Your task to perform on an android device: Open sound settings Image 0: 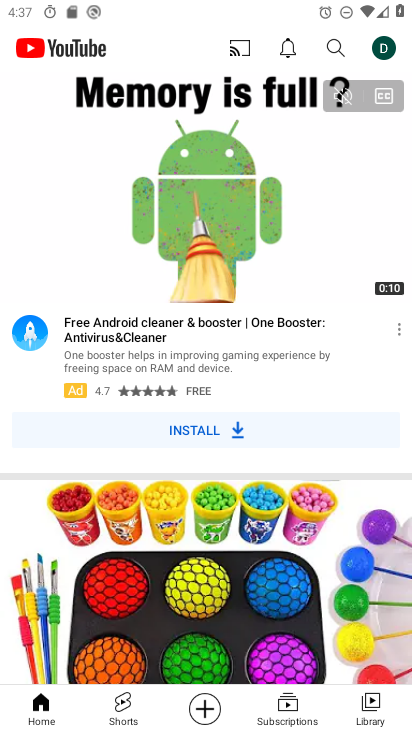
Step 0: press back button
Your task to perform on an android device: Open sound settings Image 1: 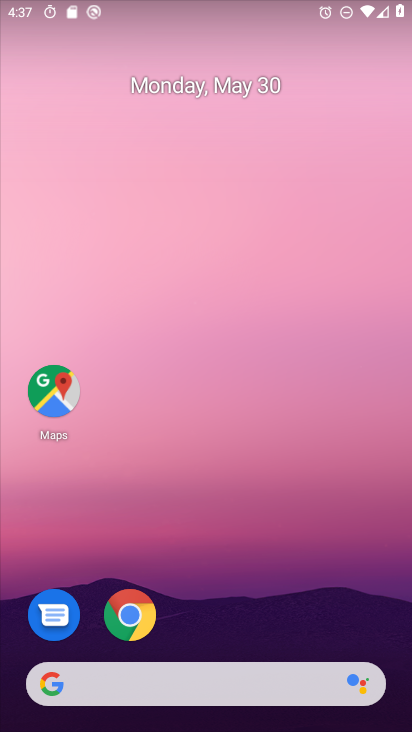
Step 1: drag from (265, 585) to (211, 151)
Your task to perform on an android device: Open sound settings Image 2: 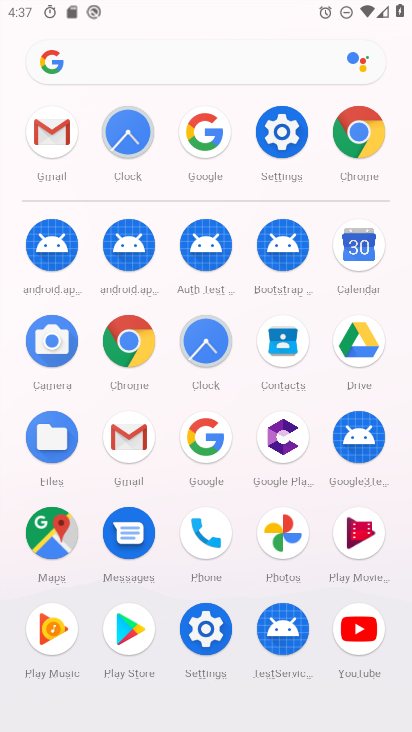
Step 2: click (279, 133)
Your task to perform on an android device: Open sound settings Image 3: 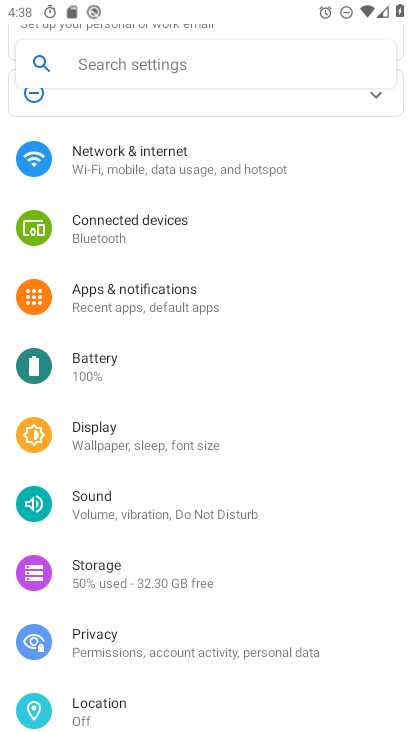
Step 3: click (168, 515)
Your task to perform on an android device: Open sound settings Image 4: 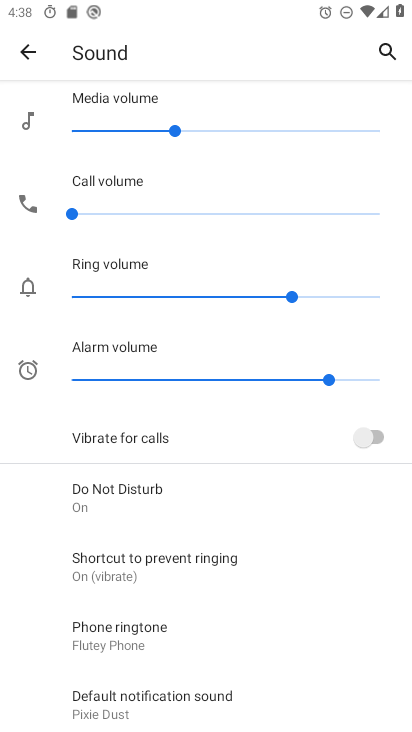
Step 4: task complete